Your task to perform on an android device: delete browsing data in the chrome app Image 0: 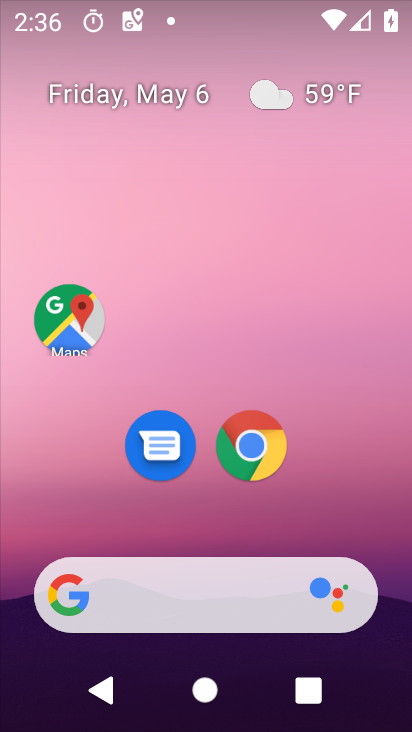
Step 0: drag from (403, 630) to (304, 262)
Your task to perform on an android device: delete browsing data in the chrome app Image 1: 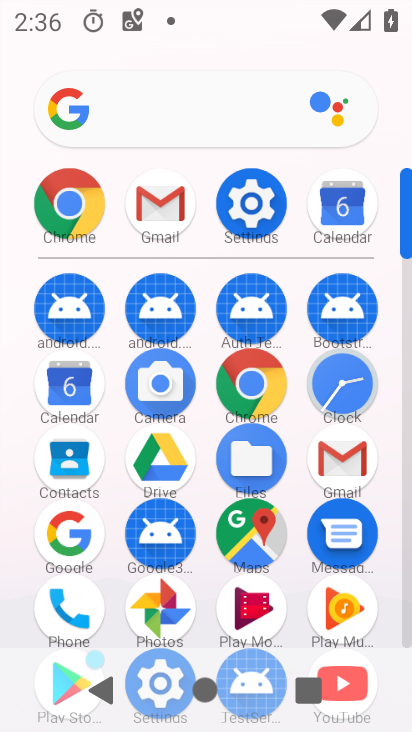
Step 1: click (244, 371)
Your task to perform on an android device: delete browsing data in the chrome app Image 2: 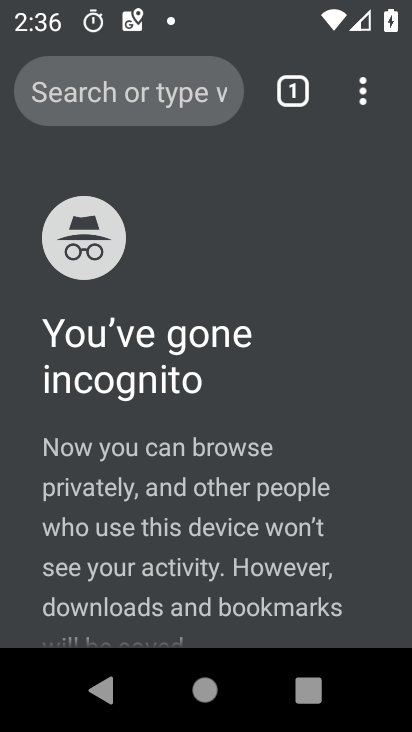
Step 2: drag from (368, 91) to (102, 480)
Your task to perform on an android device: delete browsing data in the chrome app Image 3: 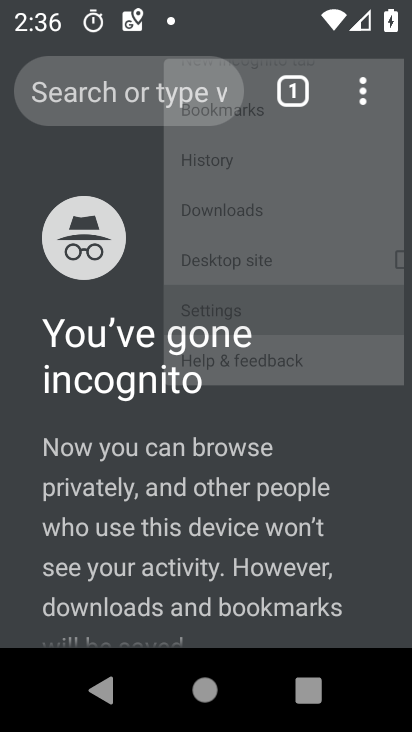
Step 3: click (102, 480)
Your task to perform on an android device: delete browsing data in the chrome app Image 4: 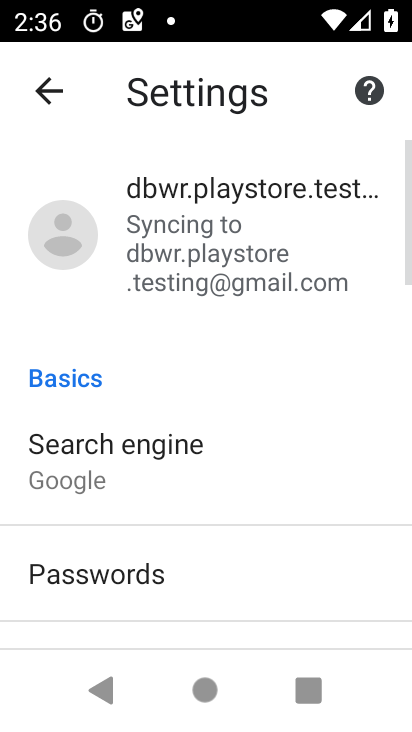
Step 4: drag from (169, 584) to (106, 97)
Your task to perform on an android device: delete browsing data in the chrome app Image 5: 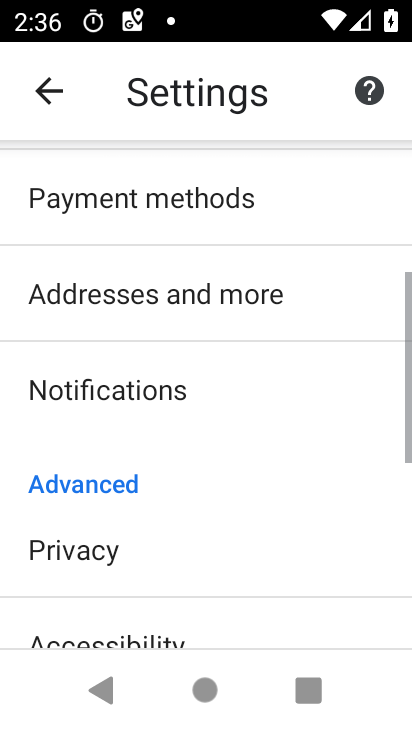
Step 5: click (43, 80)
Your task to perform on an android device: delete browsing data in the chrome app Image 6: 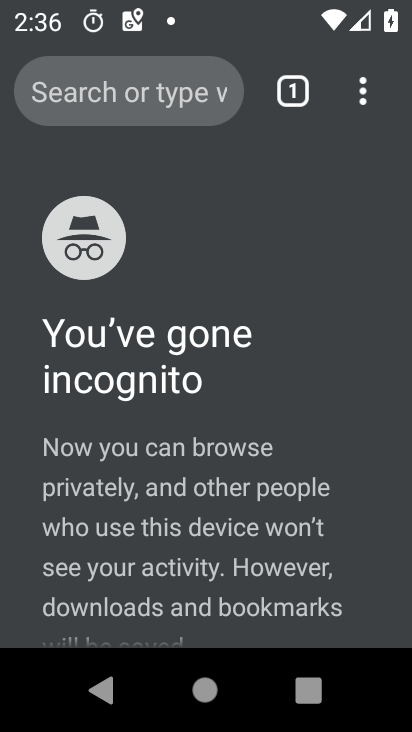
Step 6: click (357, 90)
Your task to perform on an android device: delete browsing data in the chrome app Image 7: 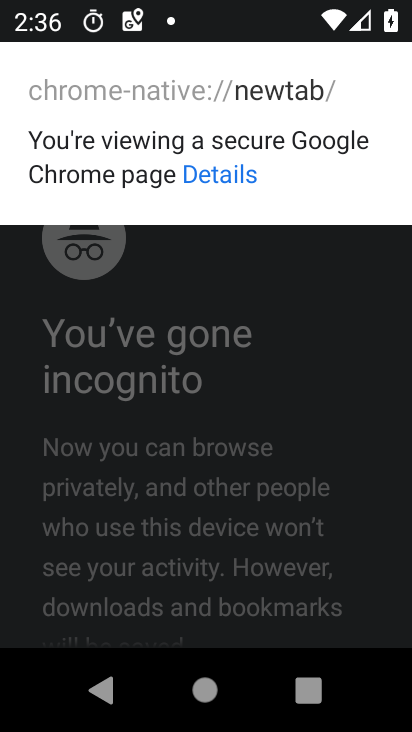
Step 7: click (311, 250)
Your task to perform on an android device: delete browsing data in the chrome app Image 8: 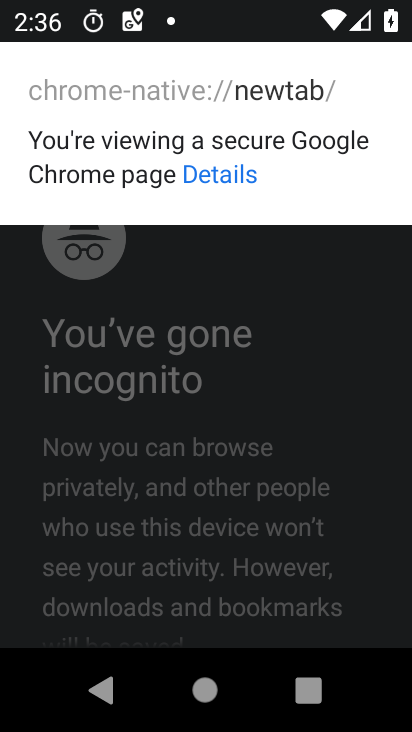
Step 8: click (343, 350)
Your task to perform on an android device: delete browsing data in the chrome app Image 9: 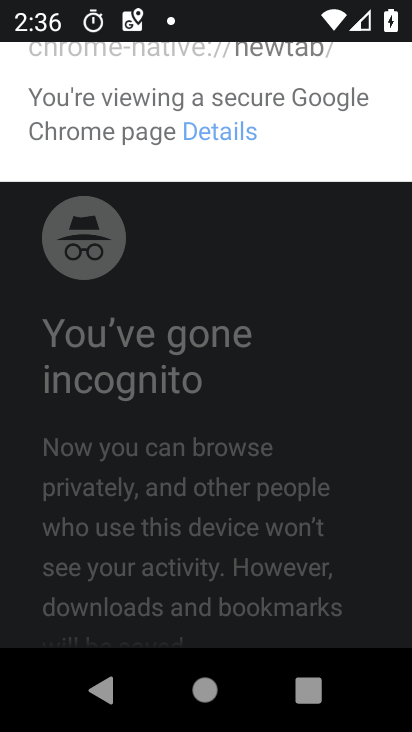
Step 9: click (341, 348)
Your task to perform on an android device: delete browsing data in the chrome app Image 10: 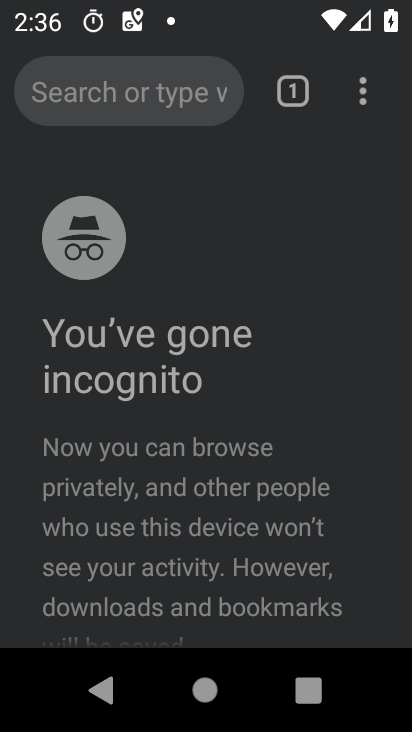
Step 10: click (341, 348)
Your task to perform on an android device: delete browsing data in the chrome app Image 11: 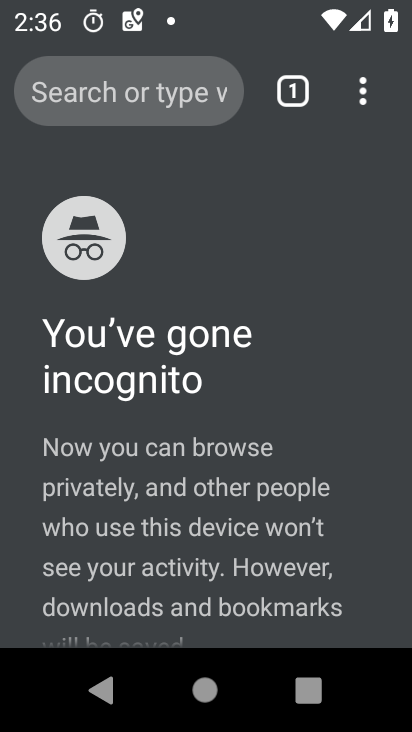
Step 11: click (339, 348)
Your task to perform on an android device: delete browsing data in the chrome app Image 12: 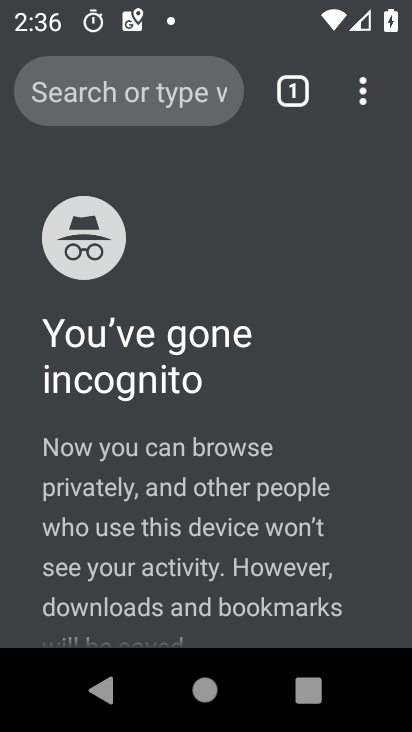
Step 12: drag from (361, 69) to (104, 212)
Your task to perform on an android device: delete browsing data in the chrome app Image 13: 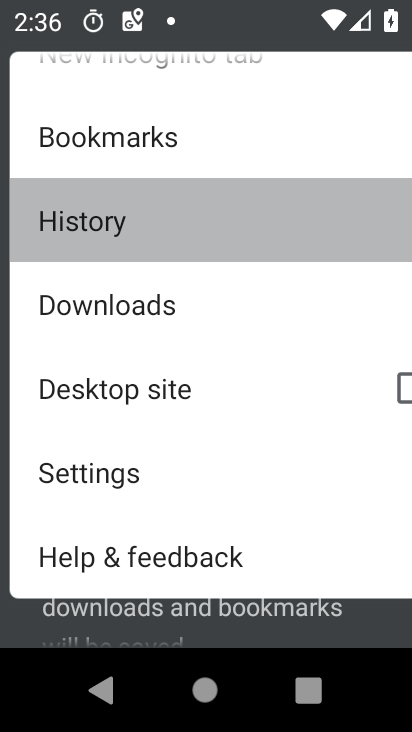
Step 13: click (101, 216)
Your task to perform on an android device: delete browsing data in the chrome app Image 14: 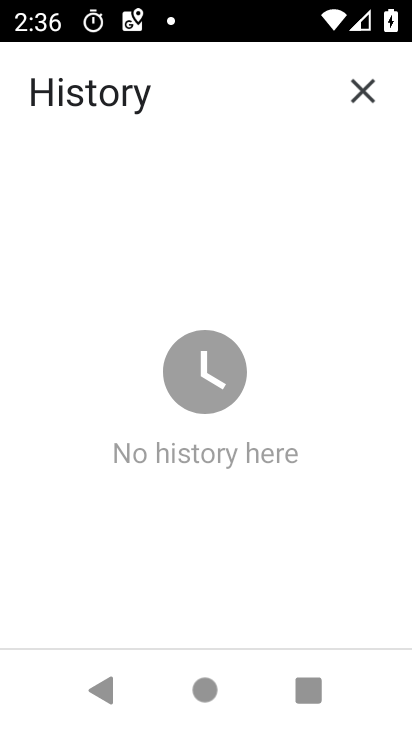
Step 14: task complete